Your task to perform on an android device: Go to location settings Image 0: 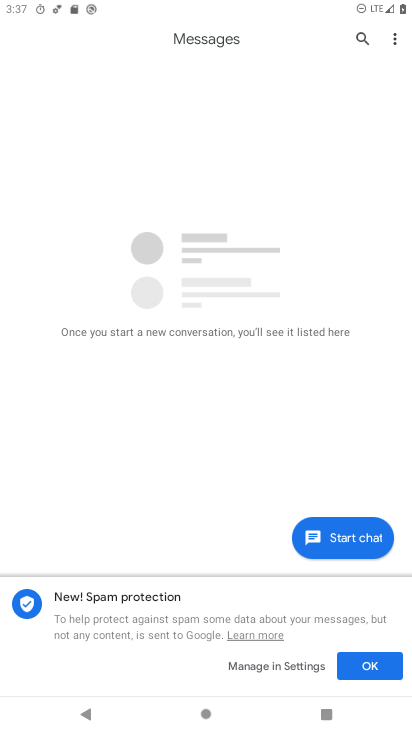
Step 0: press home button
Your task to perform on an android device: Go to location settings Image 1: 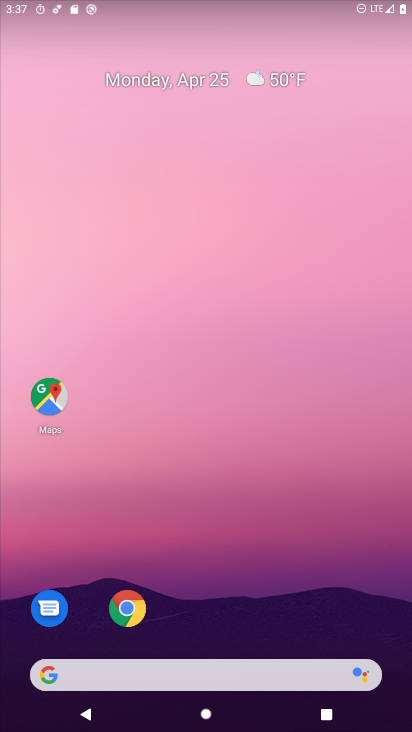
Step 1: drag from (214, 280) to (230, 169)
Your task to perform on an android device: Go to location settings Image 2: 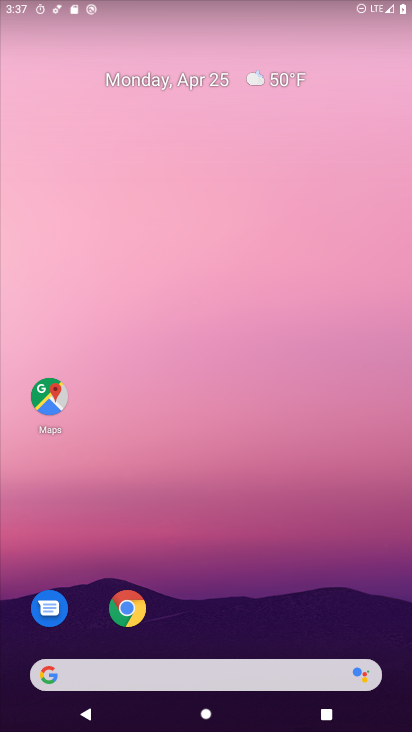
Step 2: drag from (219, 626) to (232, 213)
Your task to perform on an android device: Go to location settings Image 3: 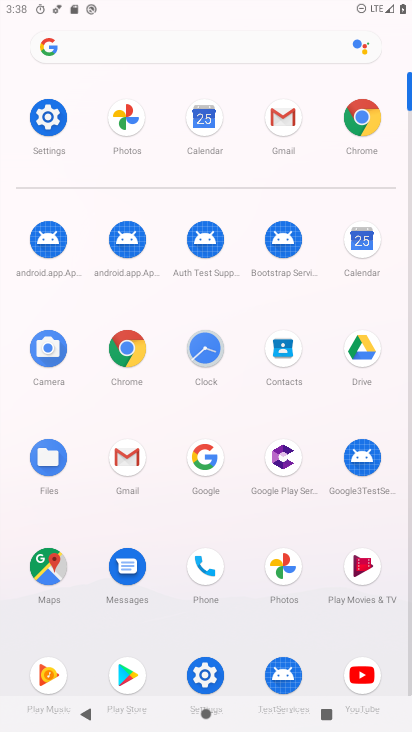
Step 3: click (51, 134)
Your task to perform on an android device: Go to location settings Image 4: 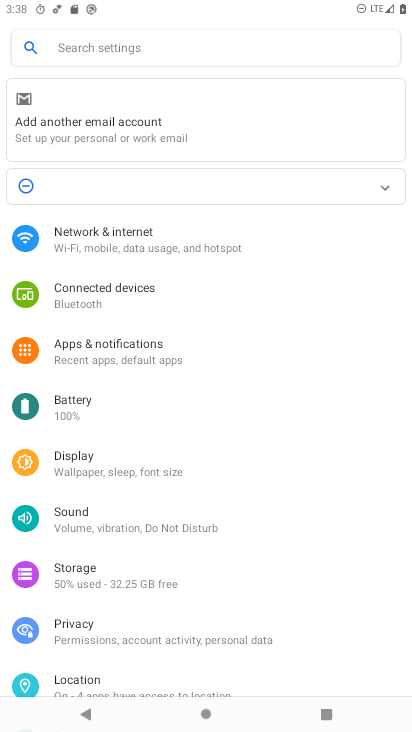
Step 4: click (125, 670)
Your task to perform on an android device: Go to location settings Image 5: 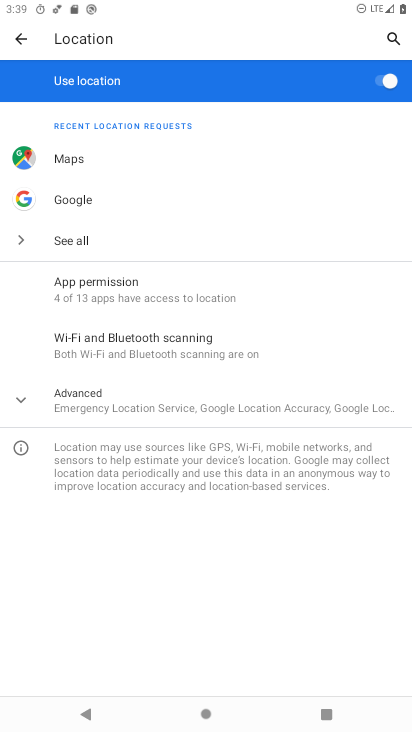
Step 5: task complete